Your task to perform on an android device: turn off sleep mode Image 0: 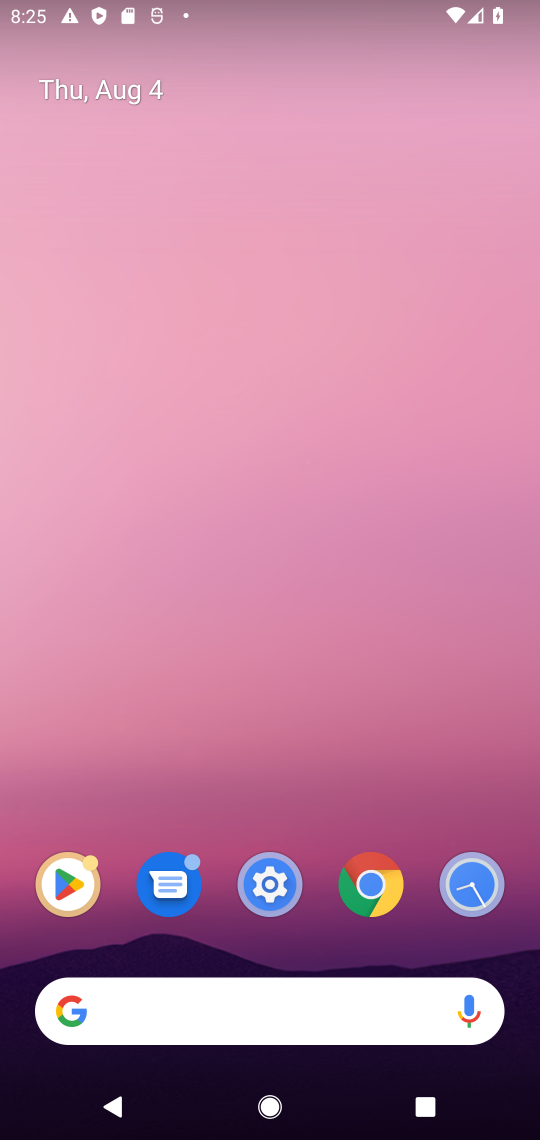
Step 0: press home button
Your task to perform on an android device: turn off sleep mode Image 1: 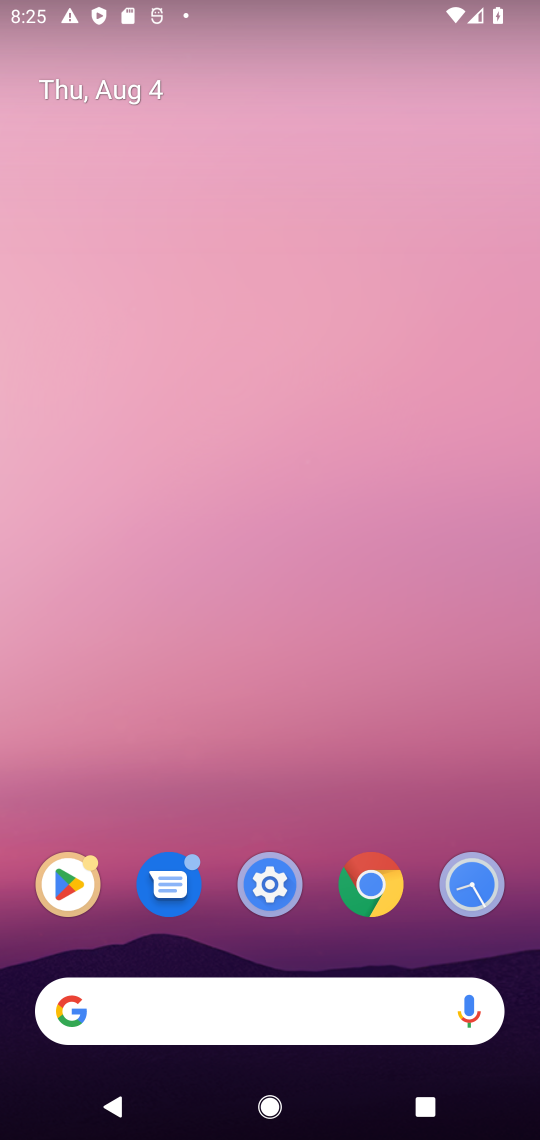
Step 1: drag from (310, 951) to (285, 305)
Your task to perform on an android device: turn off sleep mode Image 2: 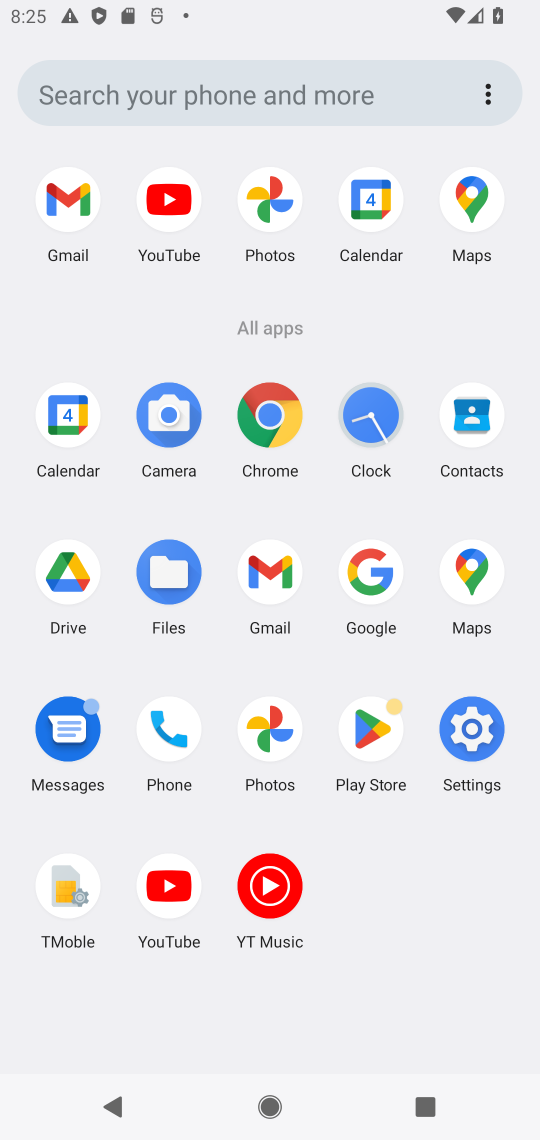
Step 2: click (487, 733)
Your task to perform on an android device: turn off sleep mode Image 3: 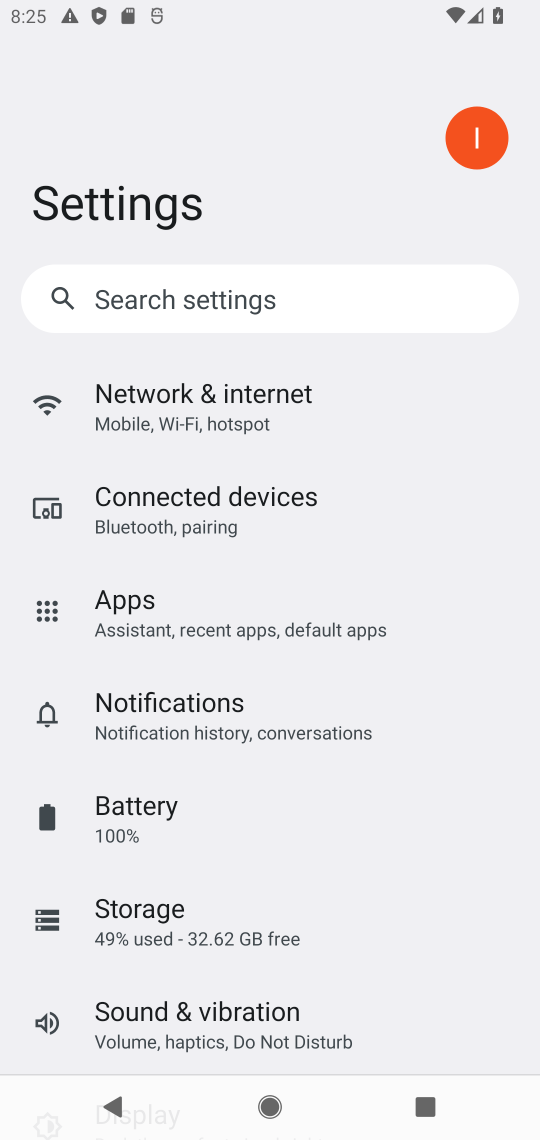
Step 3: drag from (433, 875) to (394, 350)
Your task to perform on an android device: turn off sleep mode Image 4: 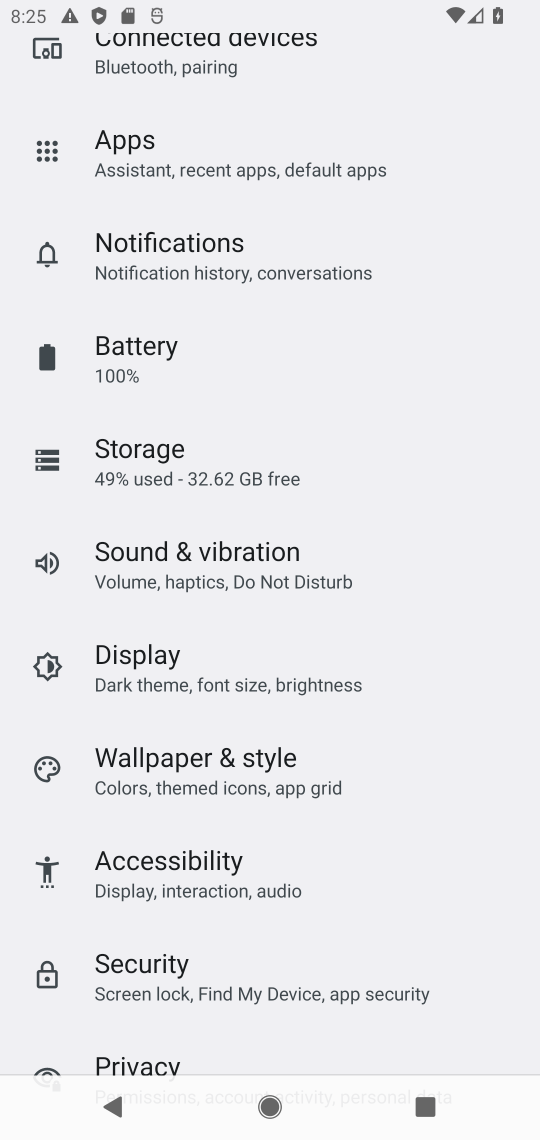
Step 4: click (178, 676)
Your task to perform on an android device: turn off sleep mode Image 5: 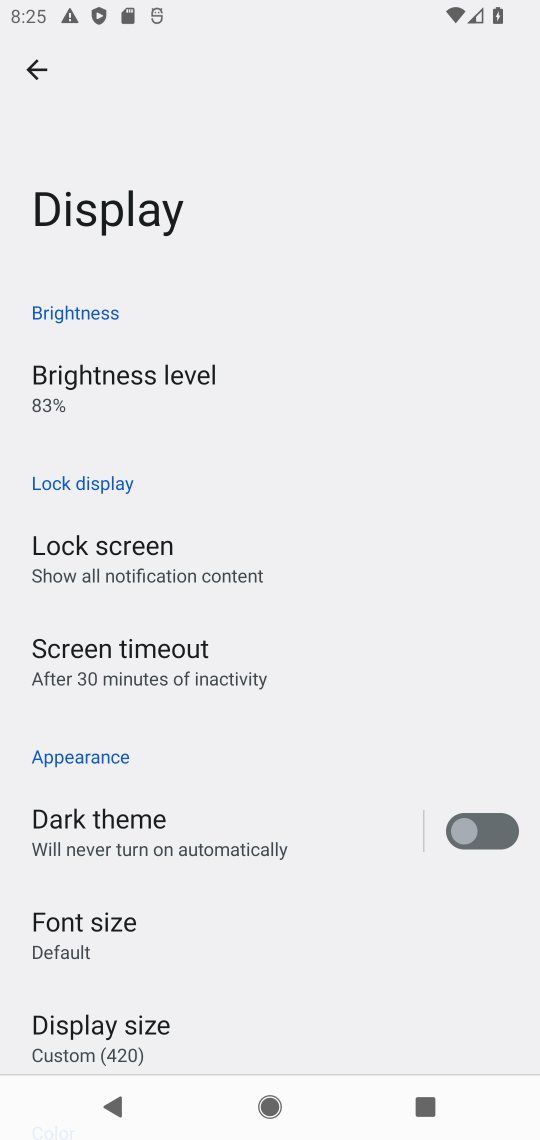
Step 5: task complete